Your task to perform on an android device: Toggle the flashlight Image 0: 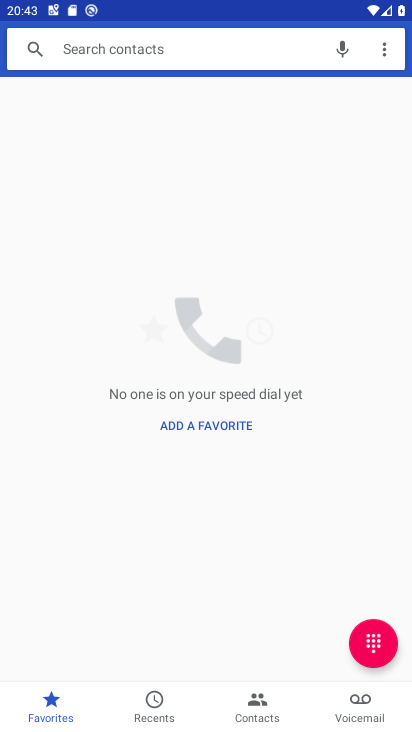
Step 0: press home button
Your task to perform on an android device: Toggle the flashlight Image 1: 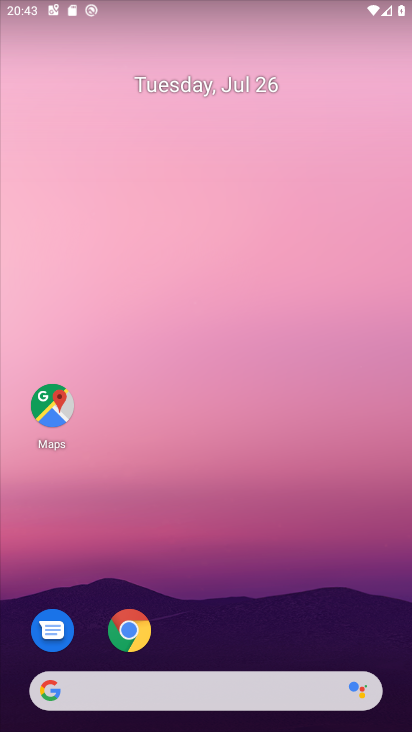
Step 1: drag from (402, 717) to (334, 117)
Your task to perform on an android device: Toggle the flashlight Image 2: 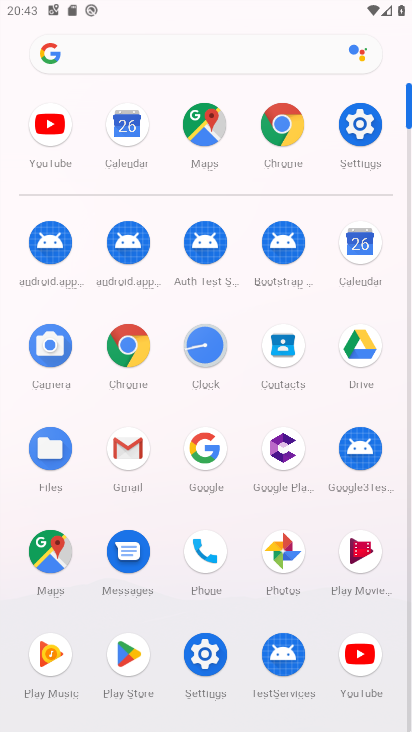
Step 2: click (365, 122)
Your task to perform on an android device: Toggle the flashlight Image 3: 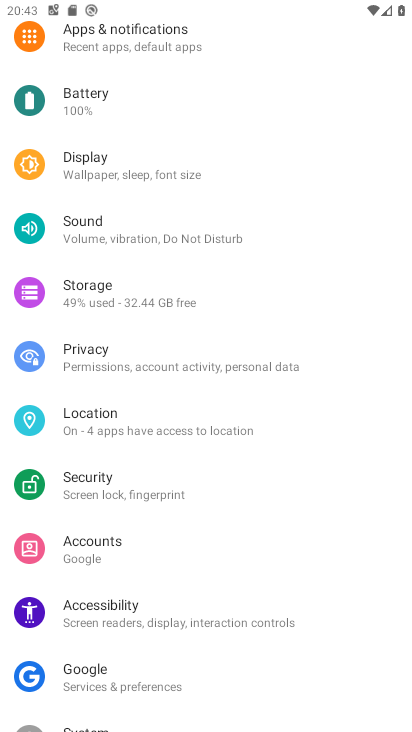
Step 3: click (94, 169)
Your task to perform on an android device: Toggle the flashlight Image 4: 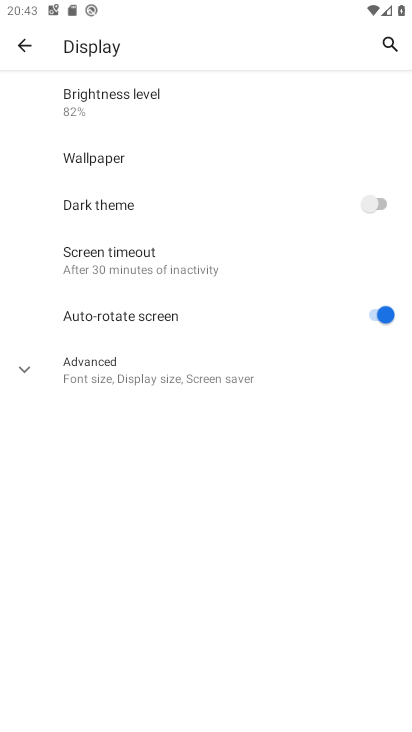
Step 4: click (37, 373)
Your task to perform on an android device: Toggle the flashlight Image 5: 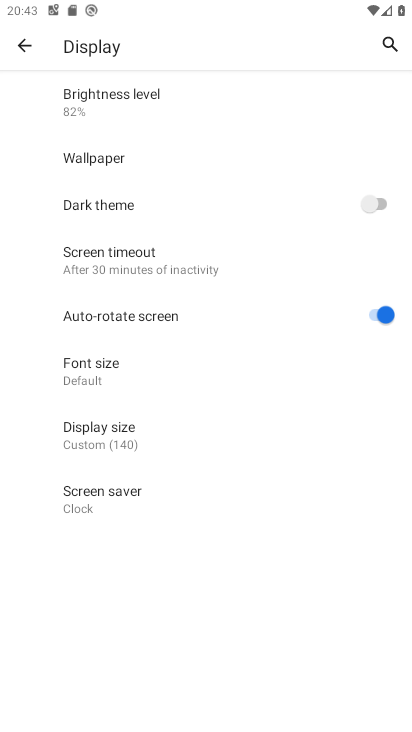
Step 5: task complete